Your task to perform on an android device: all mails in gmail Image 0: 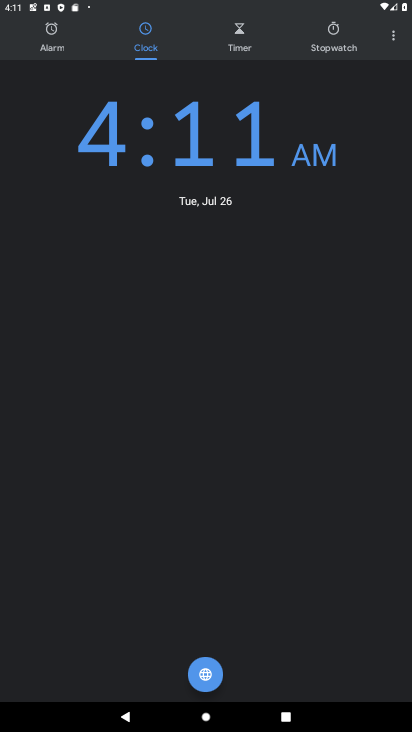
Step 0: press home button
Your task to perform on an android device: all mails in gmail Image 1: 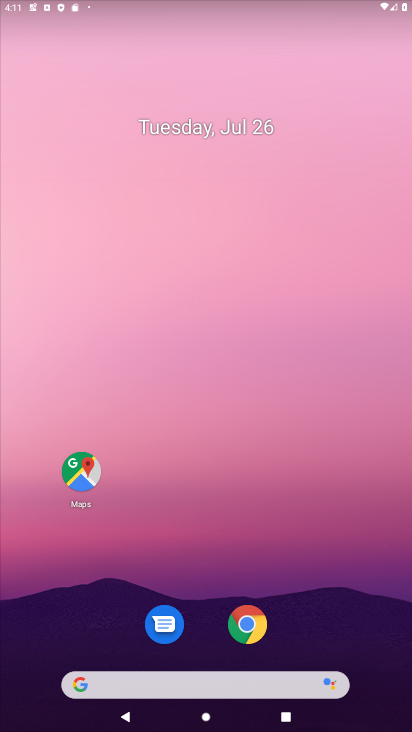
Step 1: drag from (233, 673) to (409, 563)
Your task to perform on an android device: all mails in gmail Image 2: 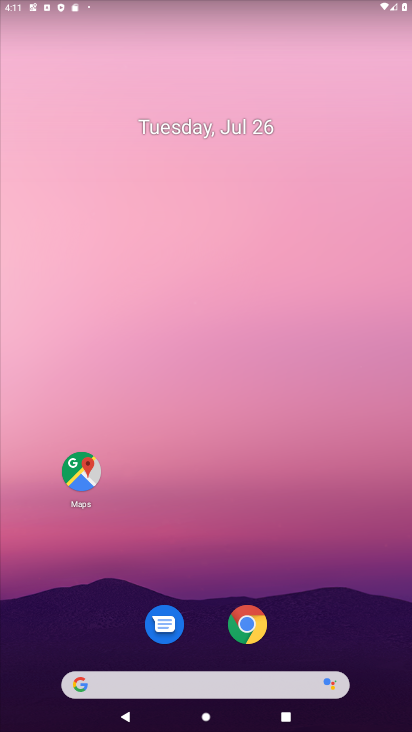
Step 2: drag from (241, 696) to (267, 7)
Your task to perform on an android device: all mails in gmail Image 3: 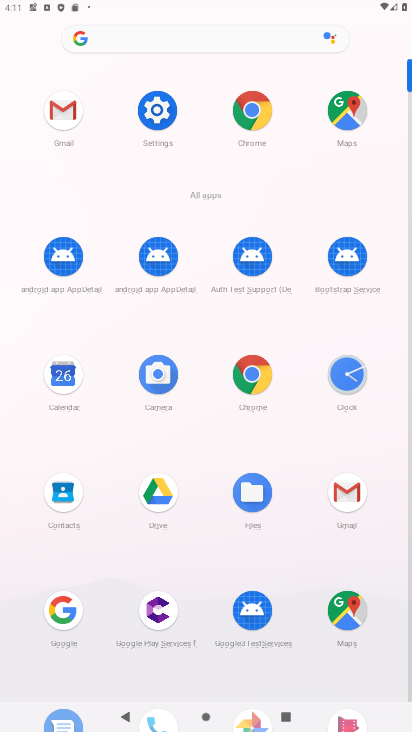
Step 3: click (349, 481)
Your task to perform on an android device: all mails in gmail Image 4: 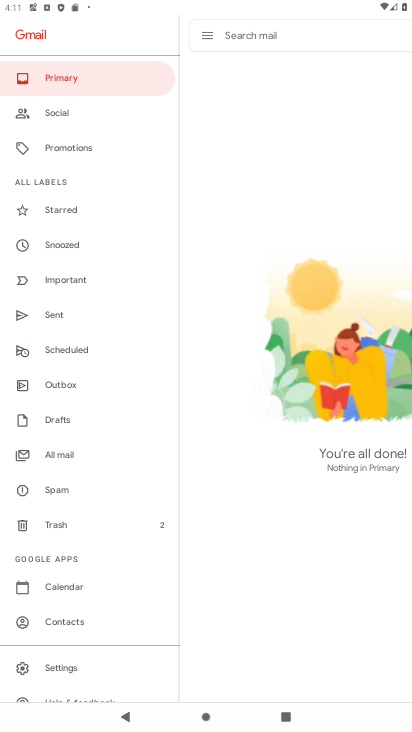
Step 4: click (58, 449)
Your task to perform on an android device: all mails in gmail Image 5: 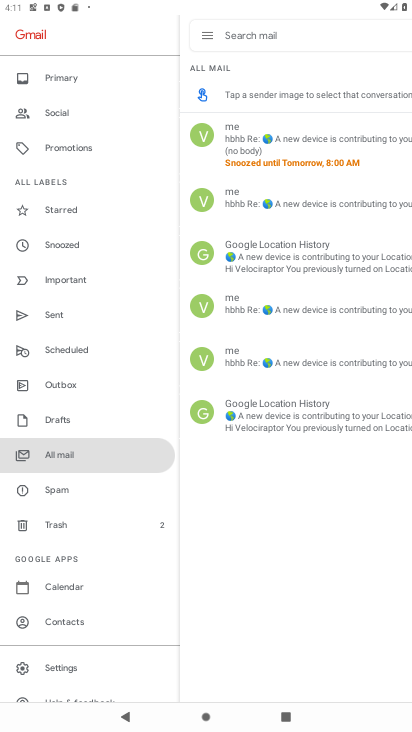
Step 5: task complete